Your task to perform on an android device: Go to Yahoo.com Image 0: 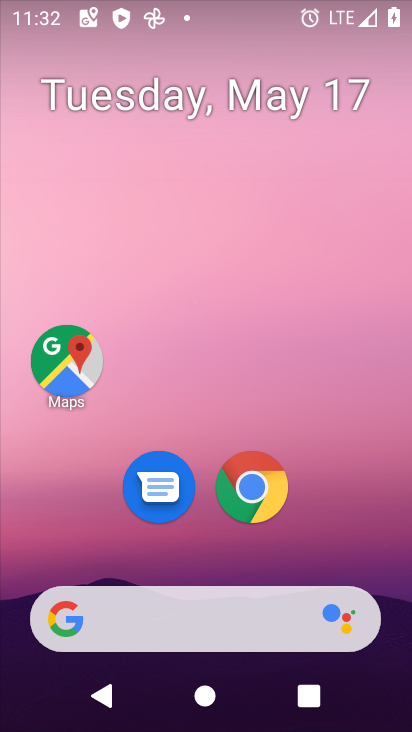
Step 0: press home button
Your task to perform on an android device: Go to Yahoo.com Image 1: 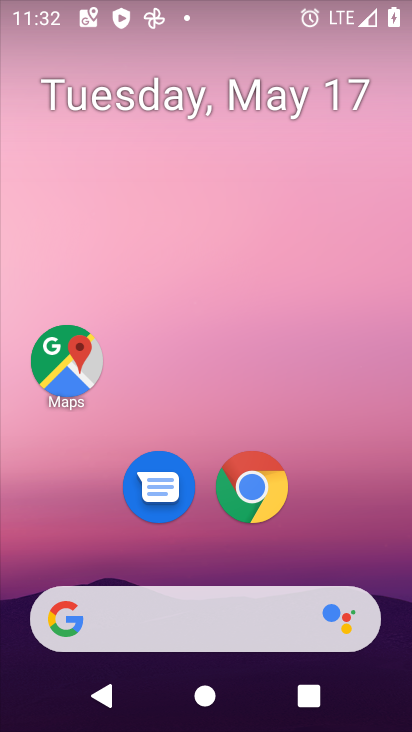
Step 1: click (255, 475)
Your task to perform on an android device: Go to Yahoo.com Image 2: 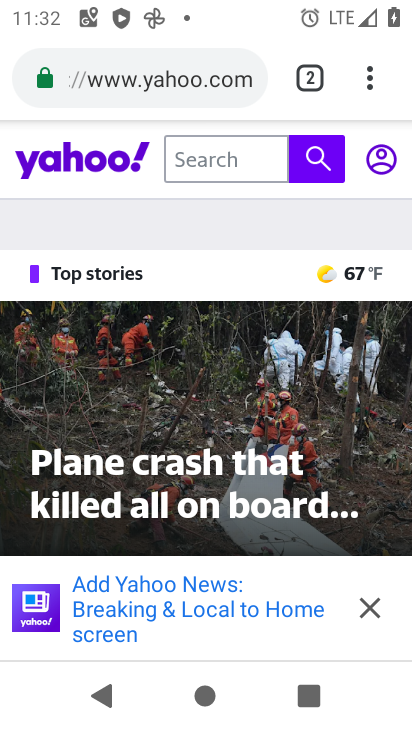
Step 2: task complete